Your task to perform on an android device: turn on notifications settings in the gmail app Image 0: 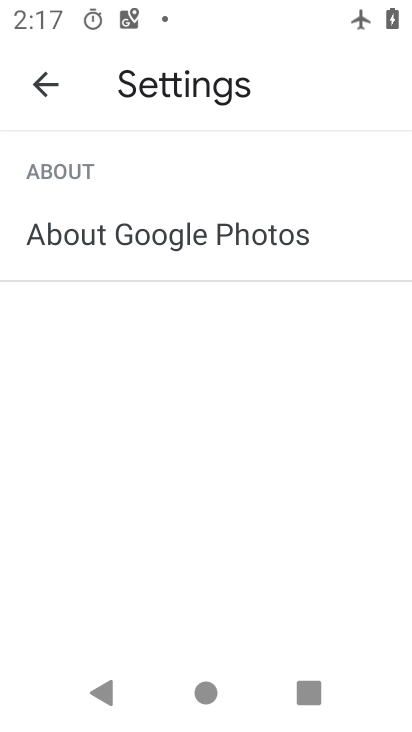
Step 0: press home button
Your task to perform on an android device: turn on notifications settings in the gmail app Image 1: 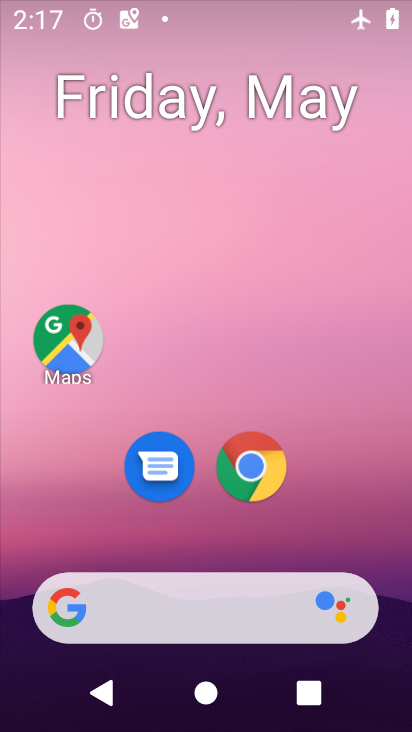
Step 1: drag from (362, 500) to (358, 40)
Your task to perform on an android device: turn on notifications settings in the gmail app Image 2: 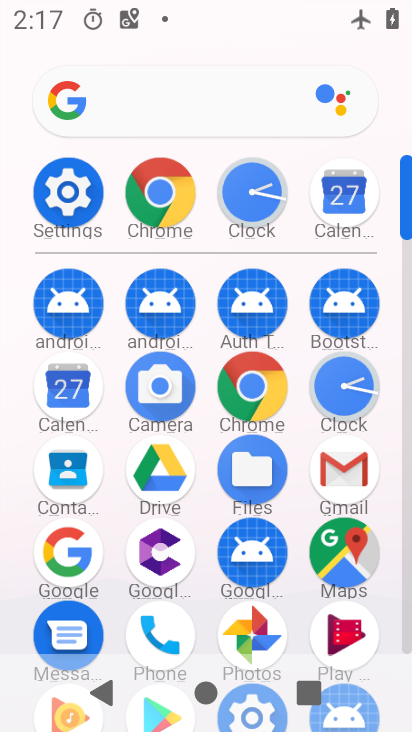
Step 2: click (356, 479)
Your task to perform on an android device: turn on notifications settings in the gmail app Image 3: 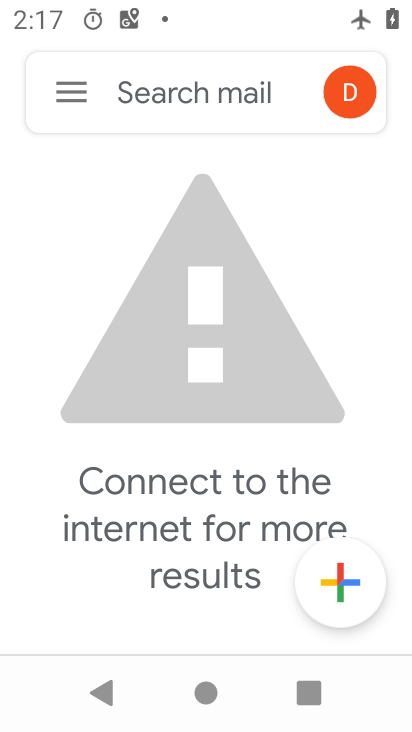
Step 3: click (53, 84)
Your task to perform on an android device: turn on notifications settings in the gmail app Image 4: 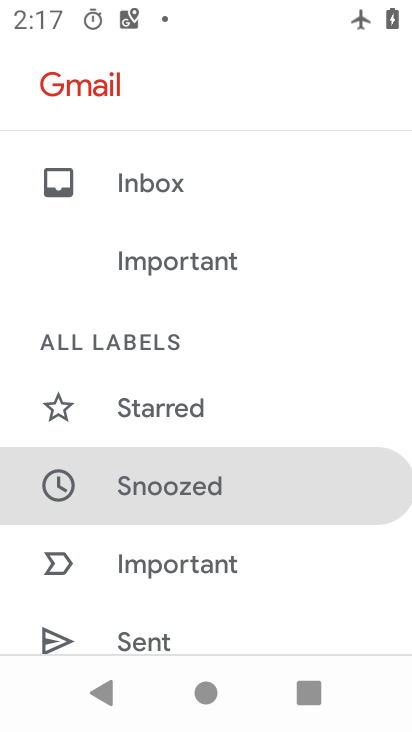
Step 4: drag from (218, 556) to (256, 98)
Your task to perform on an android device: turn on notifications settings in the gmail app Image 5: 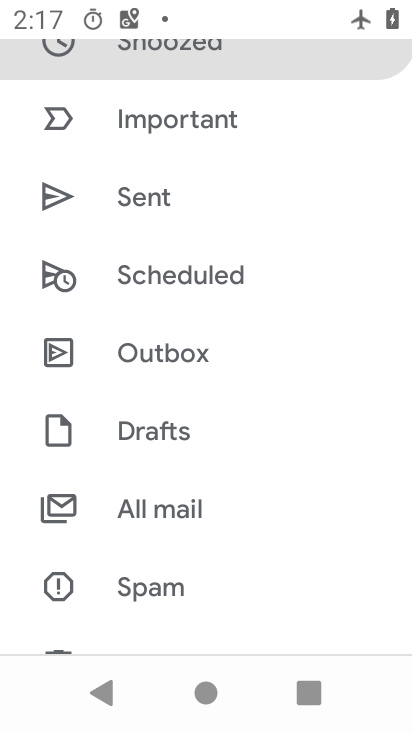
Step 5: drag from (196, 560) to (283, 35)
Your task to perform on an android device: turn on notifications settings in the gmail app Image 6: 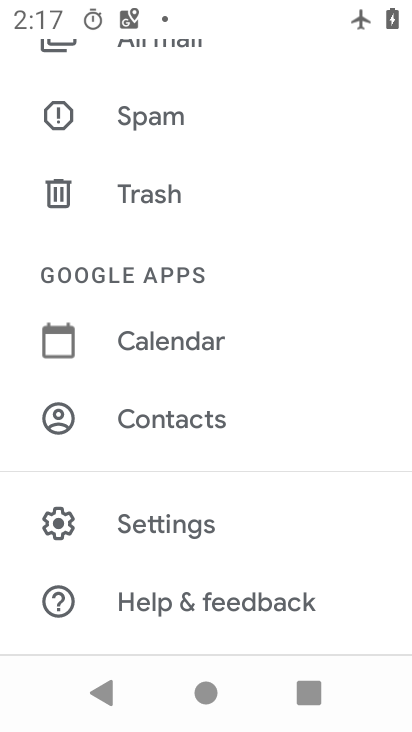
Step 6: click (163, 510)
Your task to perform on an android device: turn on notifications settings in the gmail app Image 7: 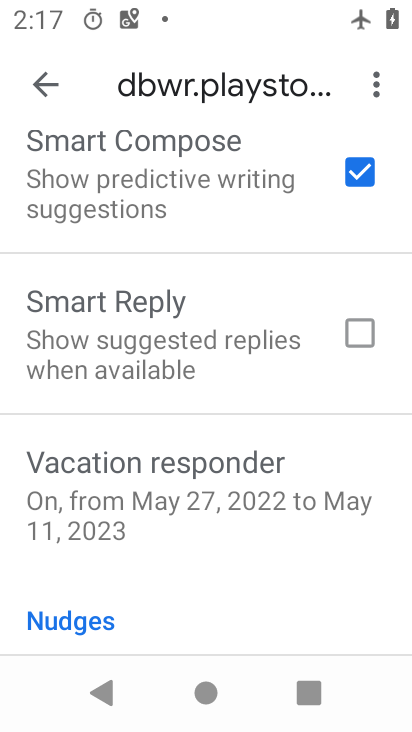
Step 7: drag from (181, 571) to (241, 118)
Your task to perform on an android device: turn on notifications settings in the gmail app Image 8: 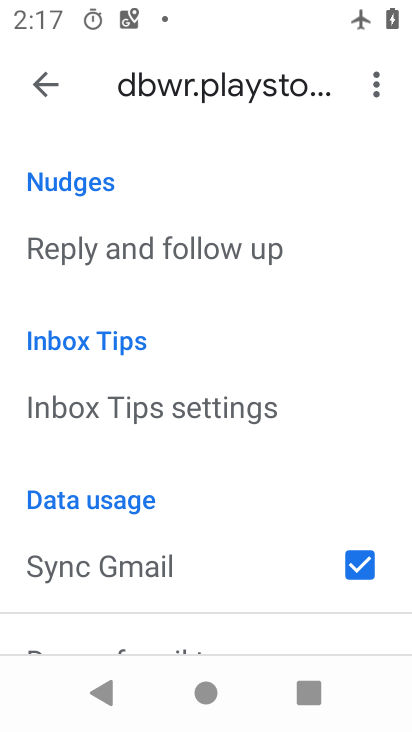
Step 8: drag from (245, 127) to (227, 549)
Your task to perform on an android device: turn on notifications settings in the gmail app Image 9: 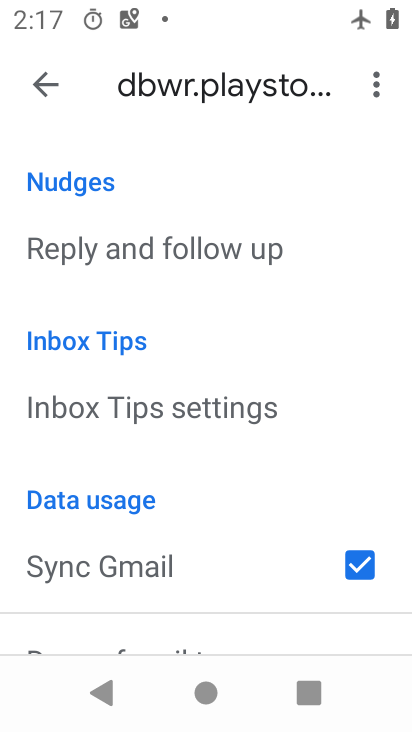
Step 9: drag from (241, 150) to (222, 626)
Your task to perform on an android device: turn on notifications settings in the gmail app Image 10: 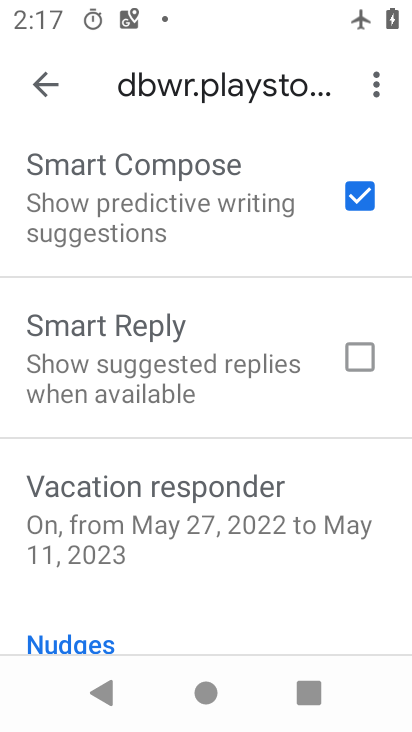
Step 10: drag from (229, 68) to (252, 592)
Your task to perform on an android device: turn on notifications settings in the gmail app Image 11: 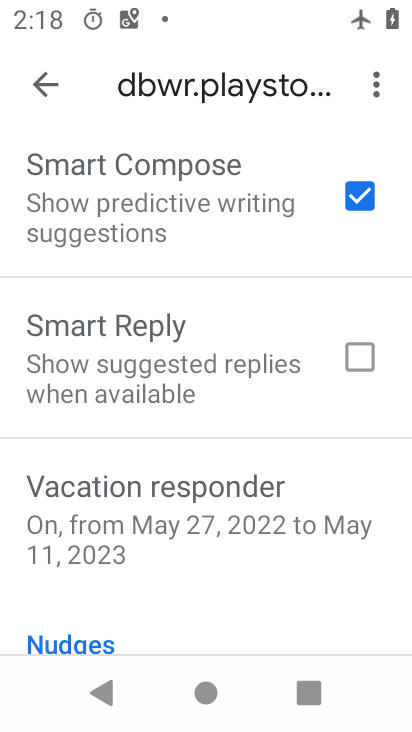
Step 11: drag from (266, 152) to (241, 571)
Your task to perform on an android device: turn on notifications settings in the gmail app Image 12: 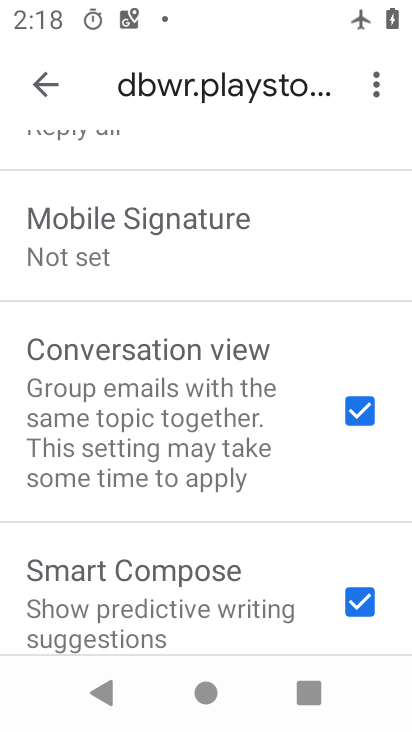
Step 12: drag from (270, 185) to (259, 586)
Your task to perform on an android device: turn on notifications settings in the gmail app Image 13: 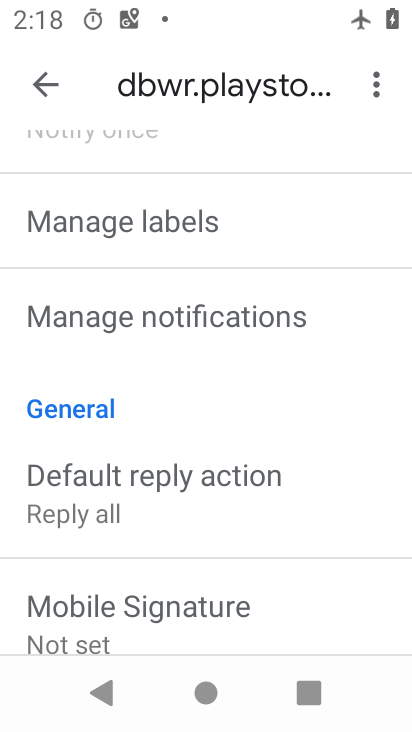
Step 13: drag from (271, 106) to (271, 624)
Your task to perform on an android device: turn on notifications settings in the gmail app Image 14: 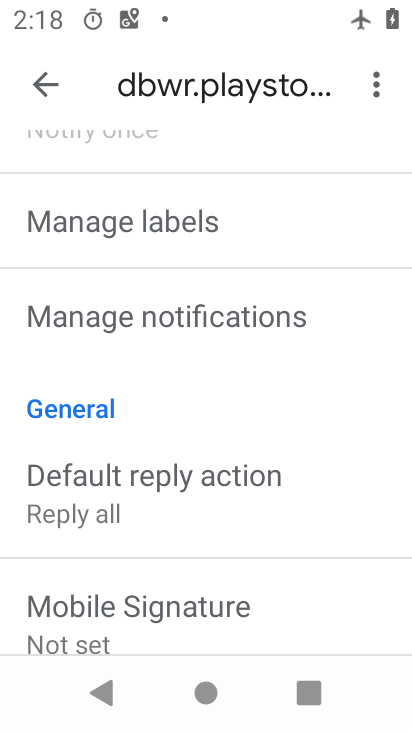
Step 14: drag from (295, 296) to (288, 706)
Your task to perform on an android device: turn on notifications settings in the gmail app Image 15: 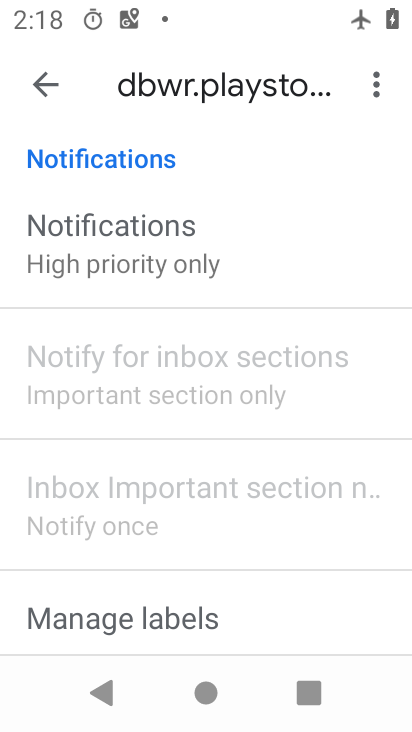
Step 15: drag from (233, 258) to (229, 730)
Your task to perform on an android device: turn on notifications settings in the gmail app Image 16: 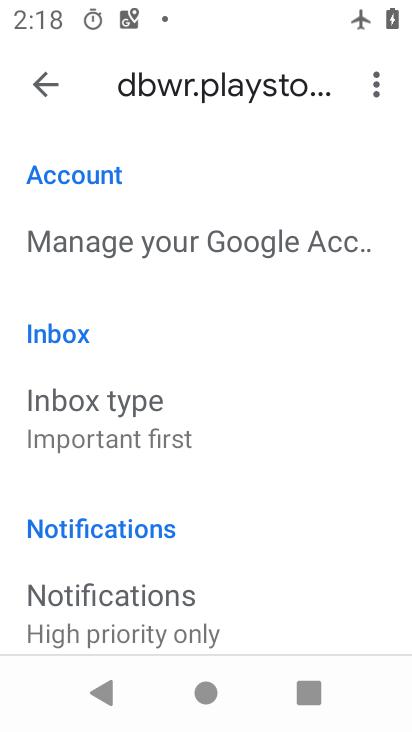
Step 16: drag from (207, 543) to (281, 241)
Your task to perform on an android device: turn on notifications settings in the gmail app Image 17: 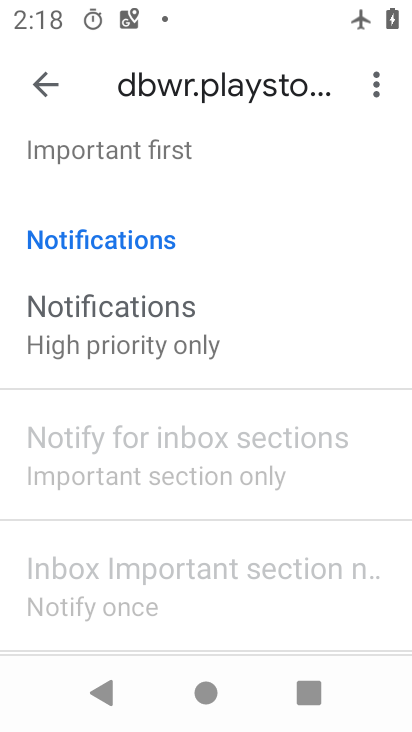
Step 17: click (132, 352)
Your task to perform on an android device: turn on notifications settings in the gmail app Image 18: 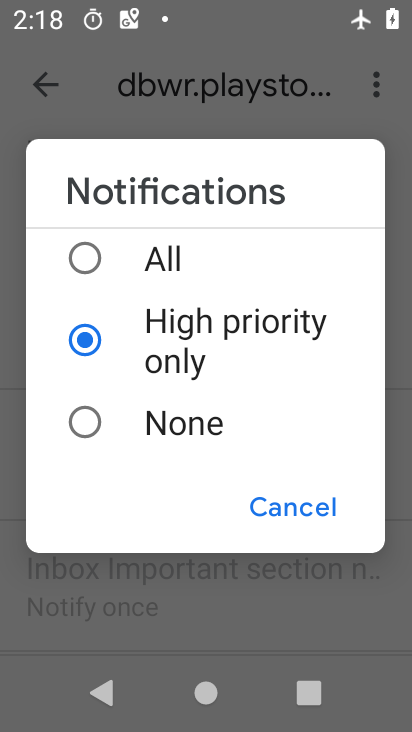
Step 18: click (103, 251)
Your task to perform on an android device: turn on notifications settings in the gmail app Image 19: 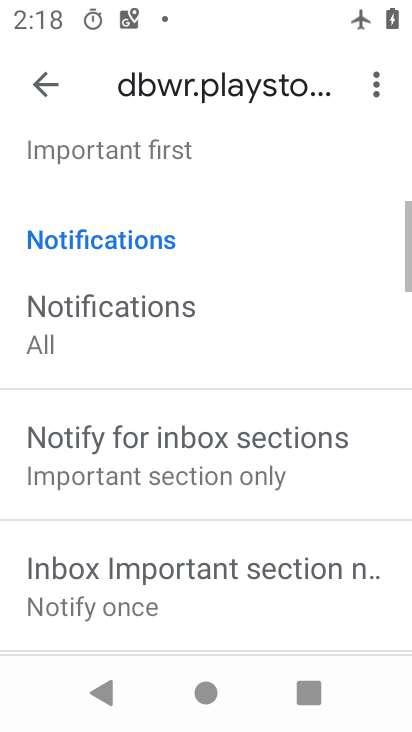
Step 19: task complete